Your task to perform on an android device: Open my contact list Image 0: 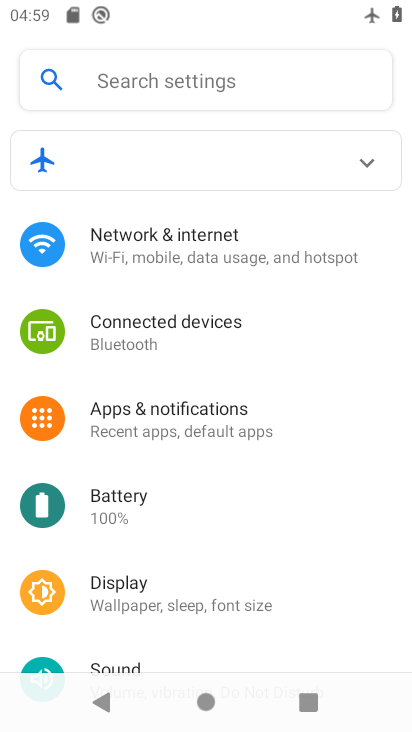
Step 0: press home button
Your task to perform on an android device: Open my contact list Image 1: 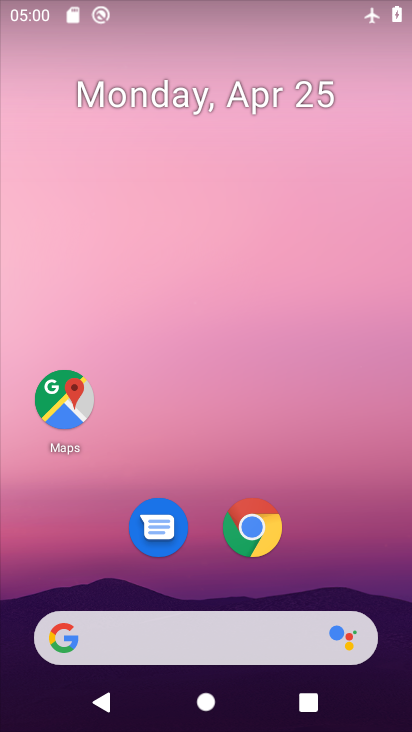
Step 1: drag from (391, 627) to (381, 142)
Your task to perform on an android device: Open my contact list Image 2: 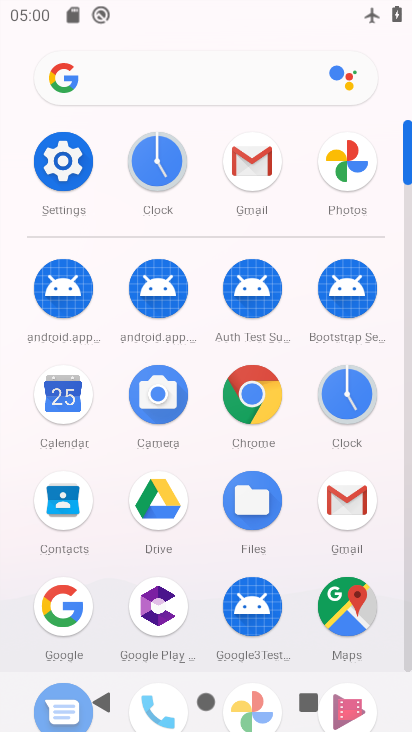
Step 2: click (407, 647)
Your task to perform on an android device: Open my contact list Image 3: 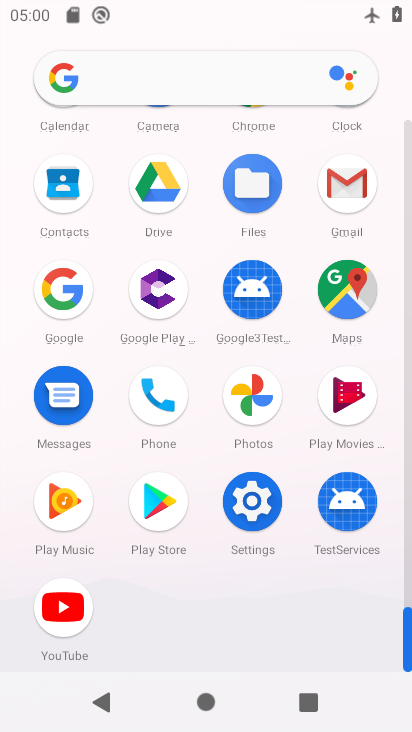
Step 3: click (56, 186)
Your task to perform on an android device: Open my contact list Image 4: 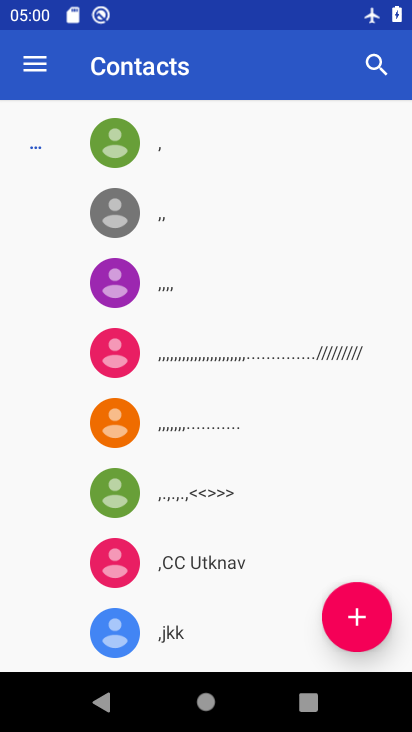
Step 4: task complete